Your task to perform on an android device: Open the web browser Image 0: 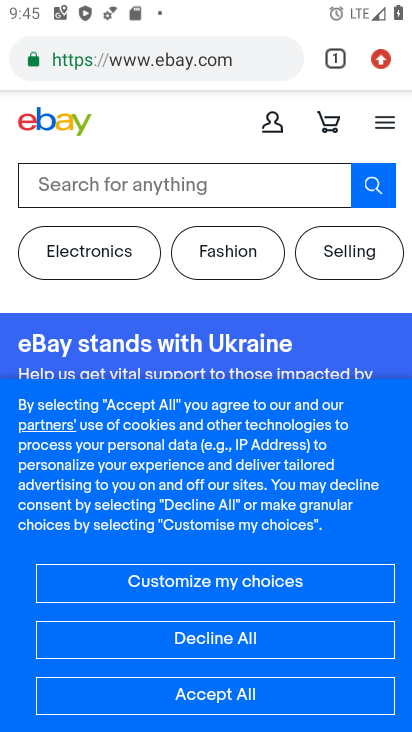
Step 0: click (389, 54)
Your task to perform on an android device: Open the web browser Image 1: 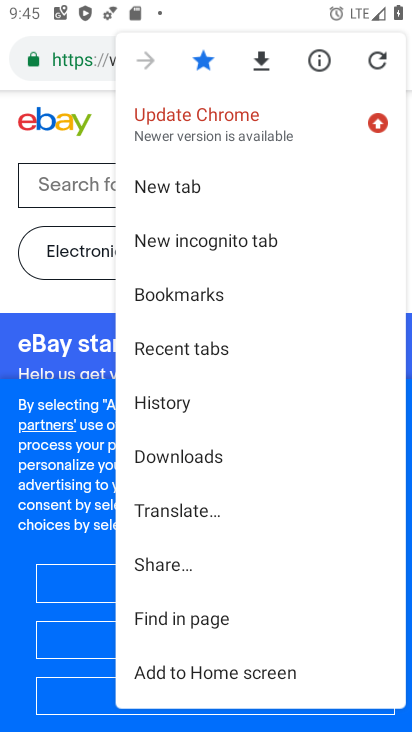
Step 1: click (170, 200)
Your task to perform on an android device: Open the web browser Image 2: 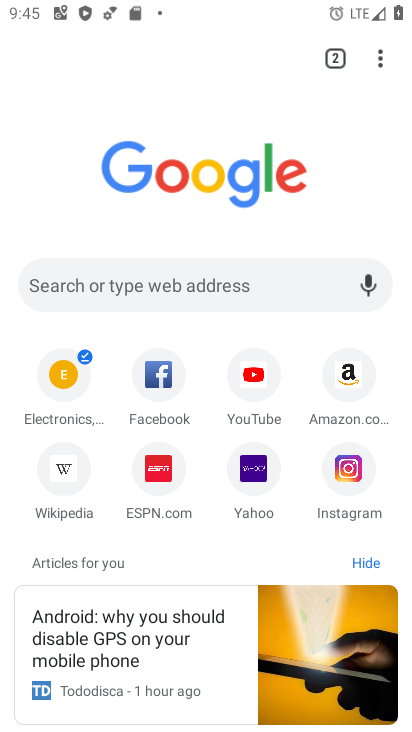
Step 2: task complete